Your task to perform on an android device: search for starred emails in the gmail app Image 0: 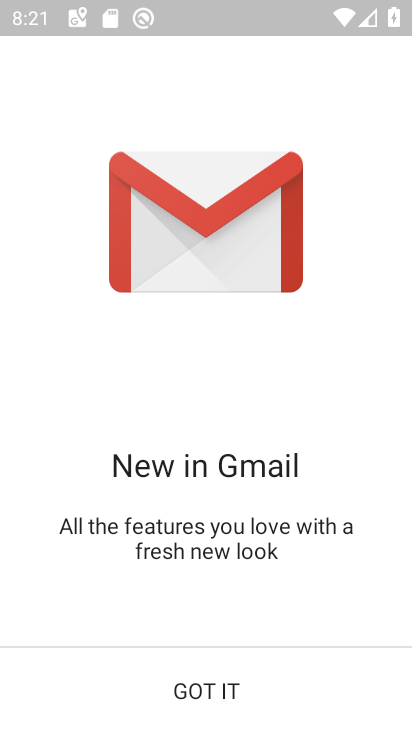
Step 0: click (253, 697)
Your task to perform on an android device: search for starred emails in the gmail app Image 1: 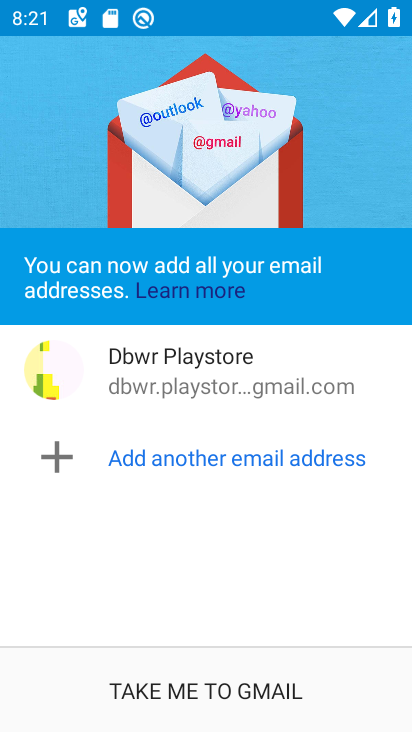
Step 1: click (209, 676)
Your task to perform on an android device: search for starred emails in the gmail app Image 2: 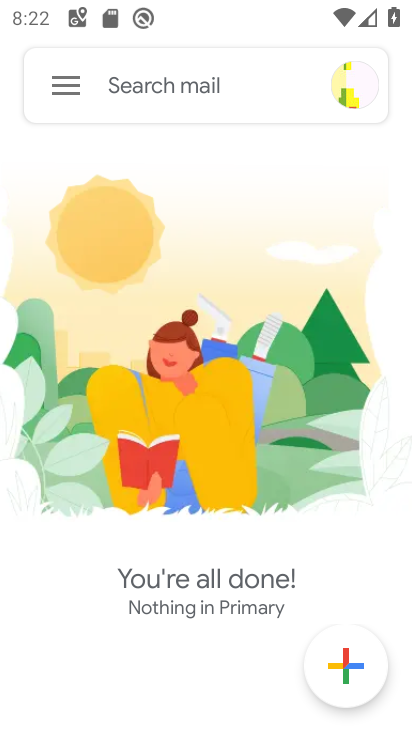
Step 2: click (71, 73)
Your task to perform on an android device: search for starred emails in the gmail app Image 3: 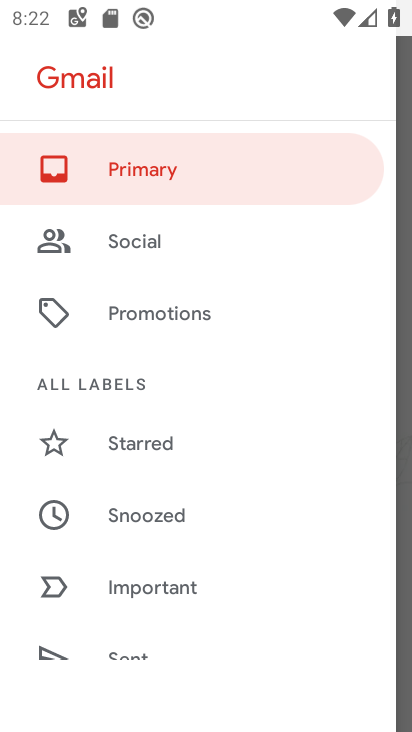
Step 3: drag from (108, 5) to (0, 22)
Your task to perform on an android device: search for starred emails in the gmail app Image 4: 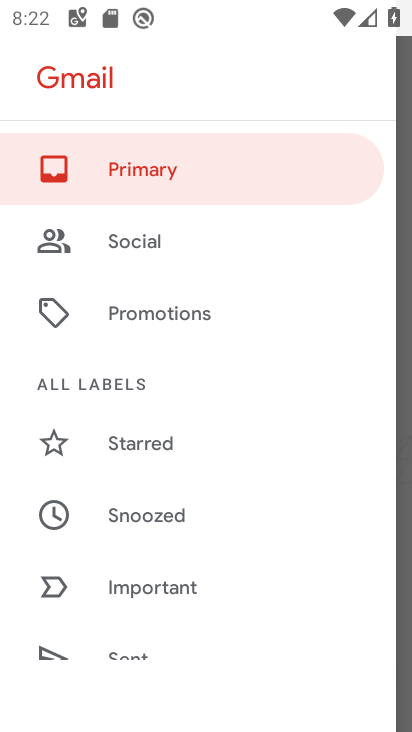
Step 4: click (159, 416)
Your task to perform on an android device: search for starred emails in the gmail app Image 5: 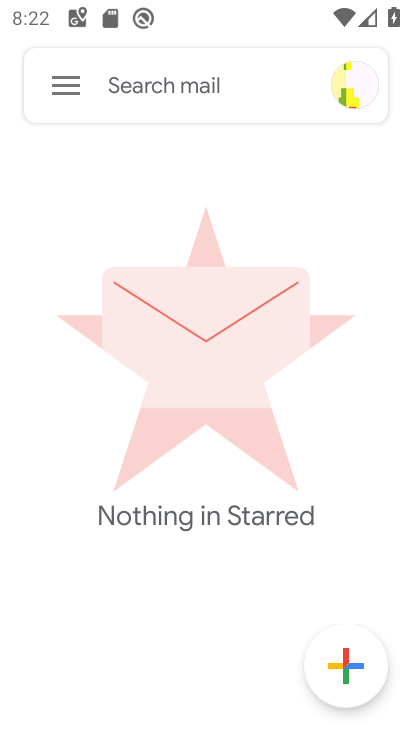
Step 5: task complete